Your task to perform on an android device: Open Android settings Image 0: 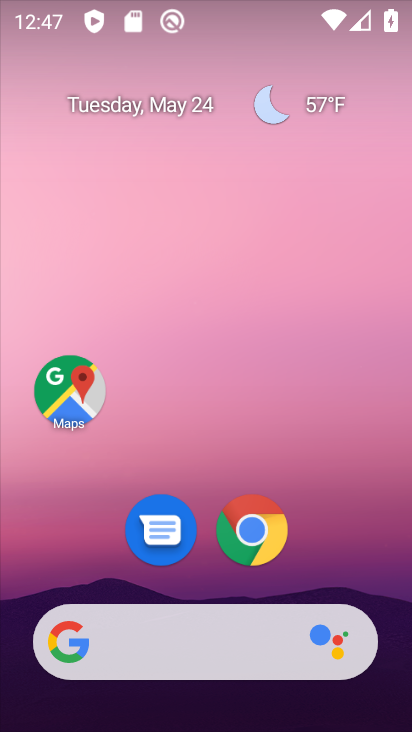
Step 0: drag from (283, 461) to (271, 58)
Your task to perform on an android device: Open Android settings Image 1: 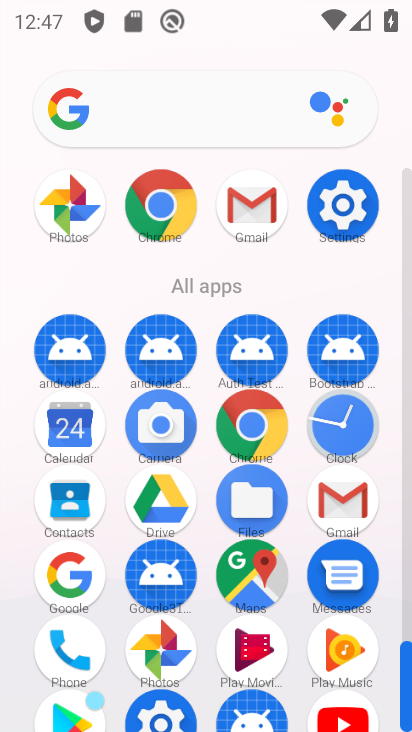
Step 1: click (343, 203)
Your task to perform on an android device: Open Android settings Image 2: 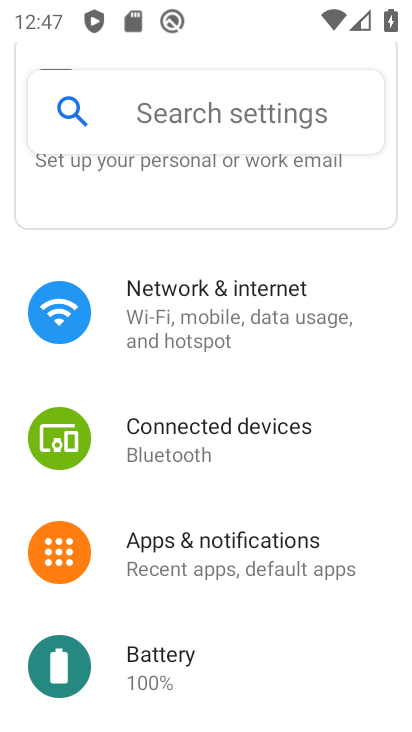
Step 2: drag from (203, 587) to (192, 173)
Your task to perform on an android device: Open Android settings Image 3: 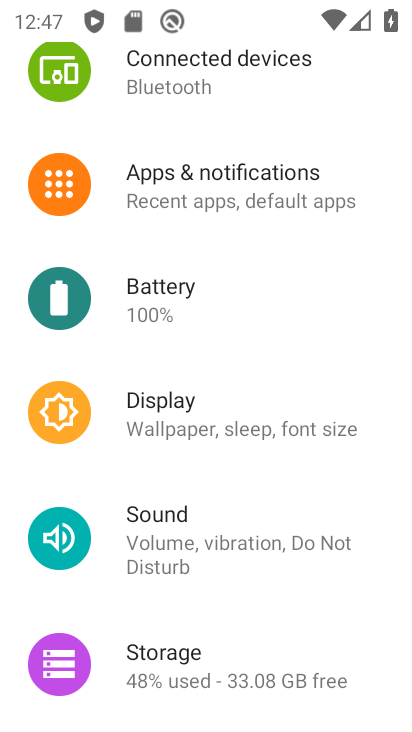
Step 3: drag from (203, 626) to (192, 277)
Your task to perform on an android device: Open Android settings Image 4: 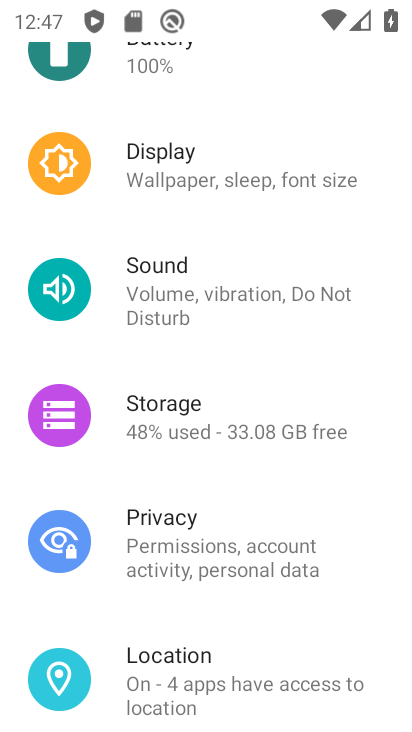
Step 4: drag from (166, 553) to (188, 274)
Your task to perform on an android device: Open Android settings Image 5: 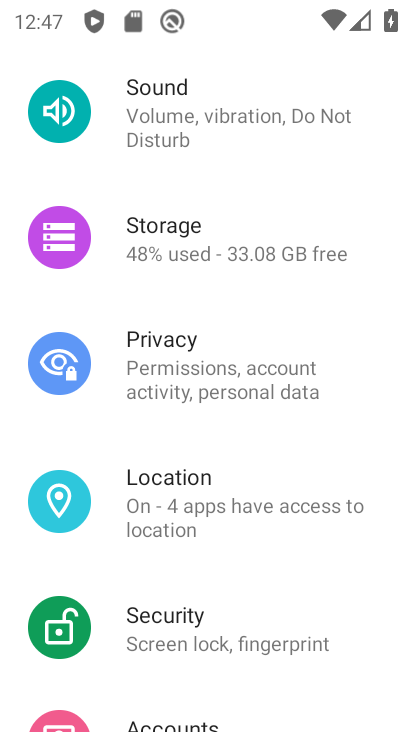
Step 5: drag from (119, 583) to (173, 181)
Your task to perform on an android device: Open Android settings Image 6: 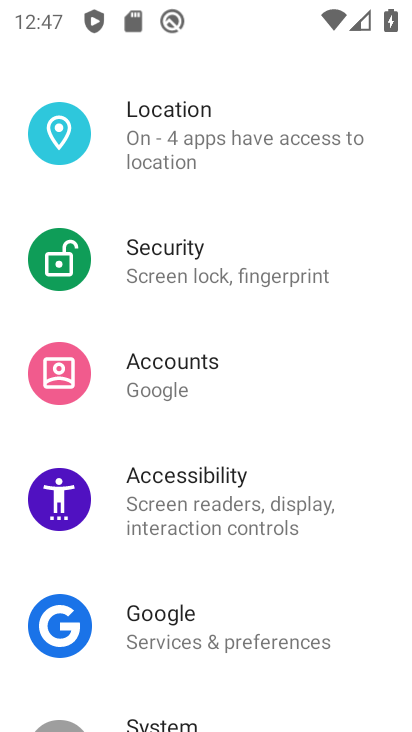
Step 6: drag from (159, 635) to (133, 270)
Your task to perform on an android device: Open Android settings Image 7: 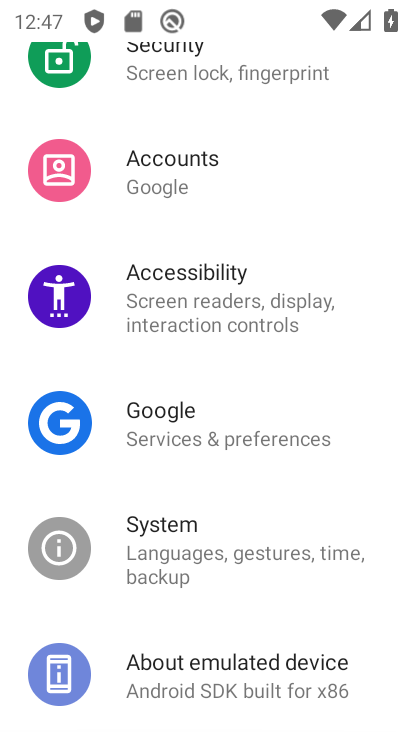
Step 7: click (171, 574)
Your task to perform on an android device: Open Android settings Image 8: 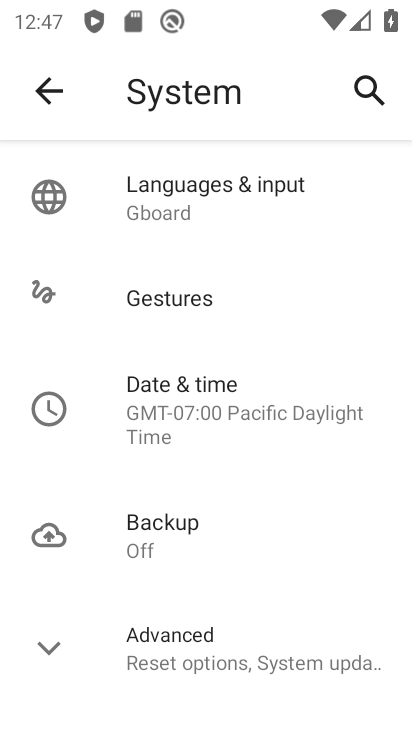
Step 8: task complete